Your task to perform on an android device: Open CNN.com Image 0: 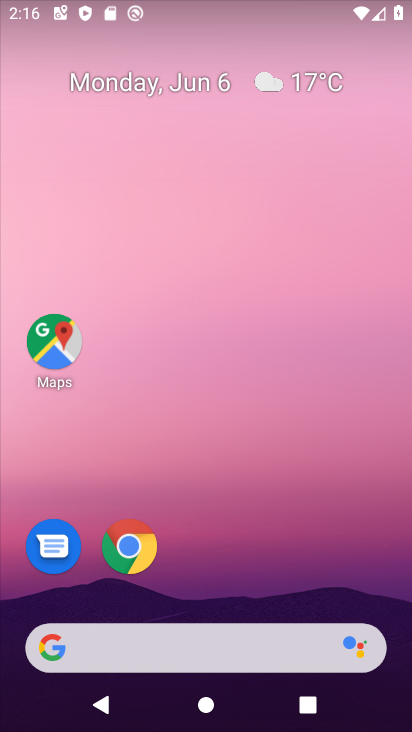
Step 0: click (248, 634)
Your task to perform on an android device: Open CNN.com Image 1: 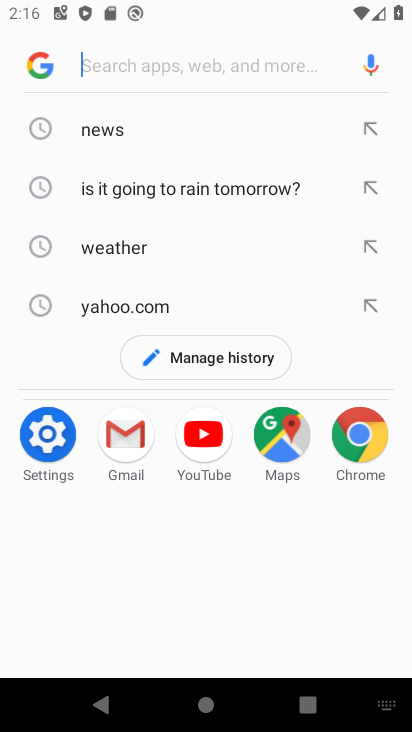
Step 1: type "cnn.com"
Your task to perform on an android device: Open CNN.com Image 2: 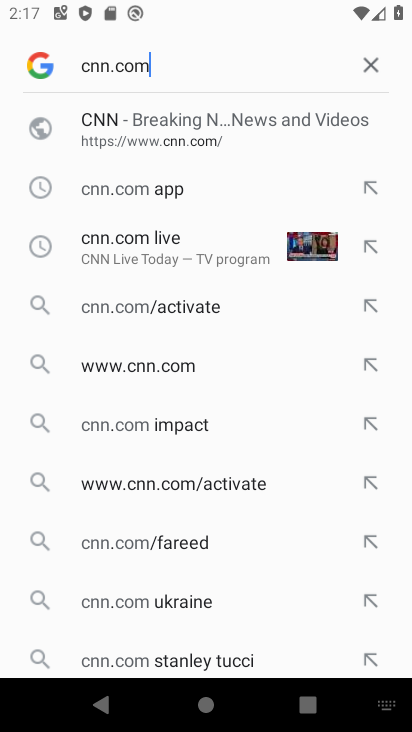
Step 2: click (153, 118)
Your task to perform on an android device: Open CNN.com Image 3: 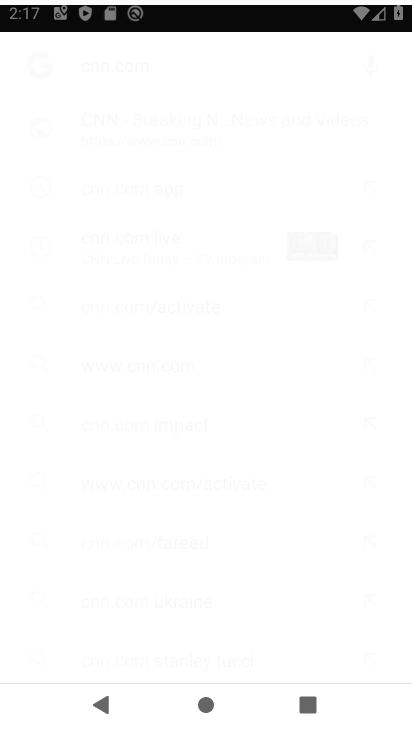
Step 3: task complete